Your task to perform on an android device: Open Chrome and go to settings Image 0: 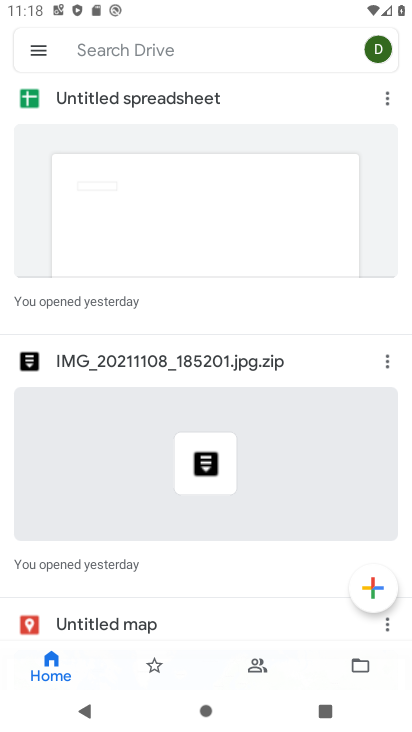
Step 0: press home button
Your task to perform on an android device: Open Chrome and go to settings Image 1: 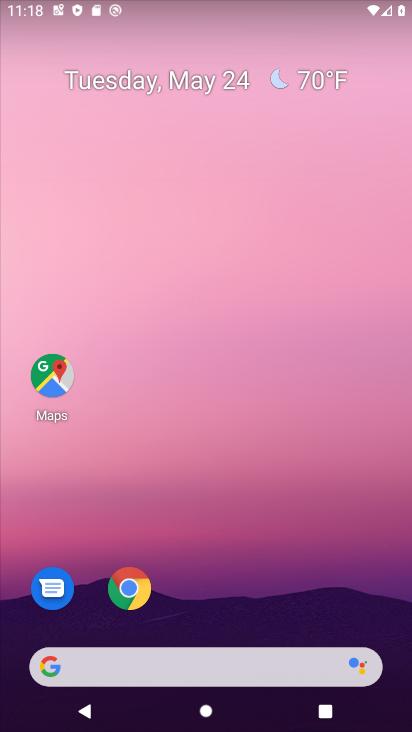
Step 1: click (129, 582)
Your task to perform on an android device: Open Chrome and go to settings Image 2: 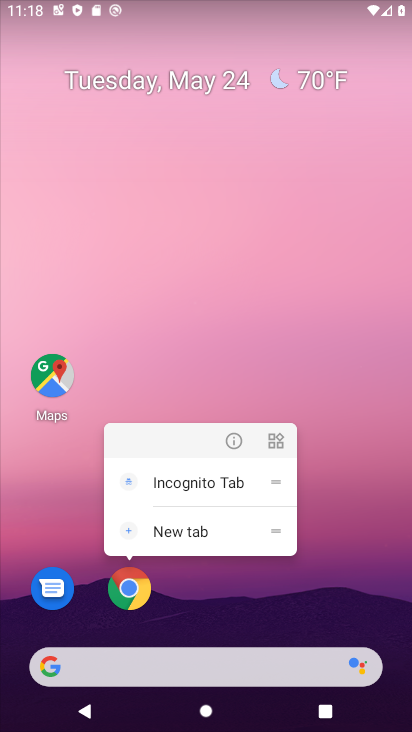
Step 2: click (126, 589)
Your task to perform on an android device: Open Chrome and go to settings Image 3: 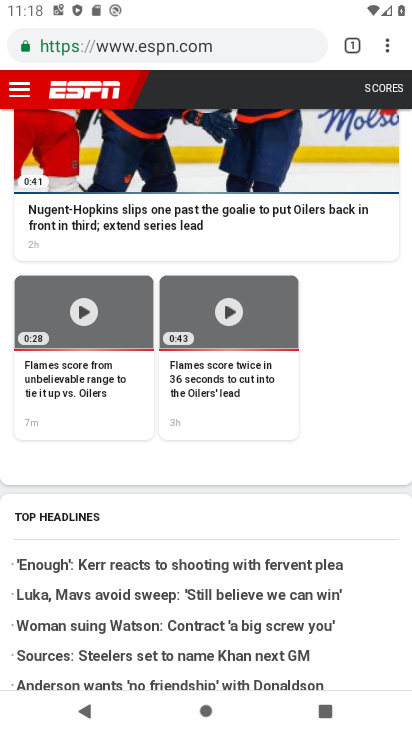
Step 3: drag from (257, 242) to (264, 626)
Your task to perform on an android device: Open Chrome and go to settings Image 4: 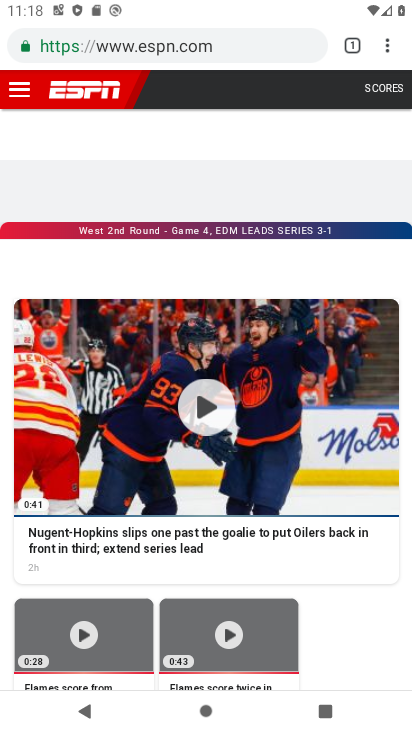
Step 4: click (386, 48)
Your task to perform on an android device: Open Chrome and go to settings Image 5: 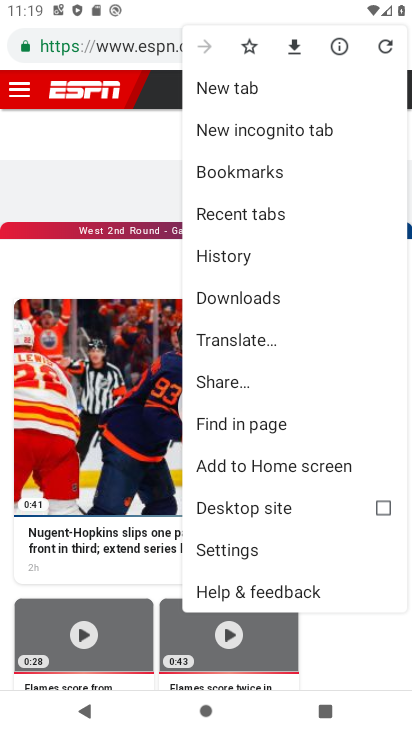
Step 5: click (264, 542)
Your task to perform on an android device: Open Chrome and go to settings Image 6: 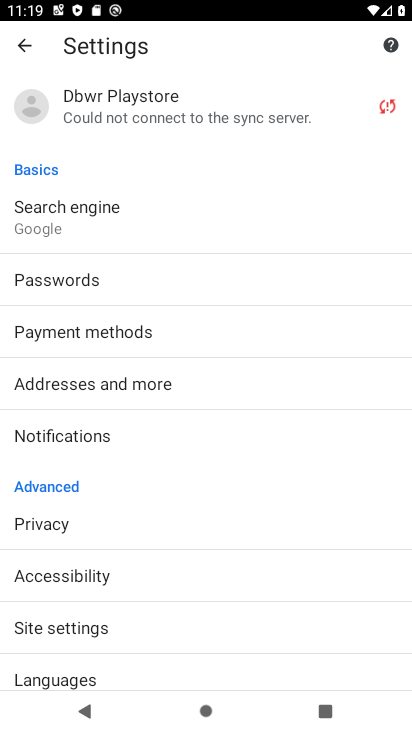
Step 6: task complete